Your task to perform on an android device: Go to sound settings Image 0: 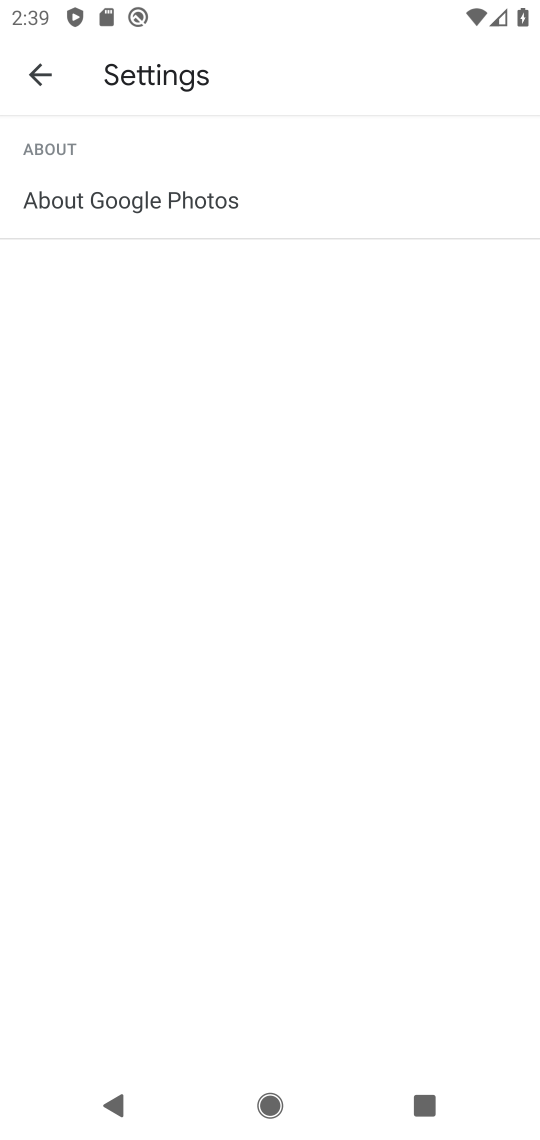
Step 0: press home button
Your task to perform on an android device: Go to sound settings Image 1: 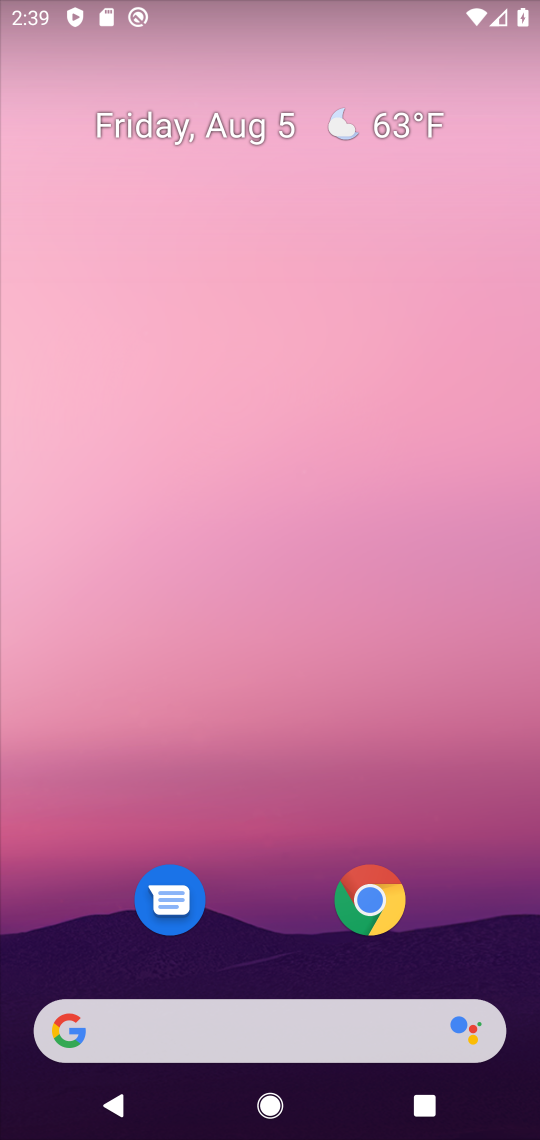
Step 1: drag from (240, 962) to (164, 346)
Your task to perform on an android device: Go to sound settings Image 2: 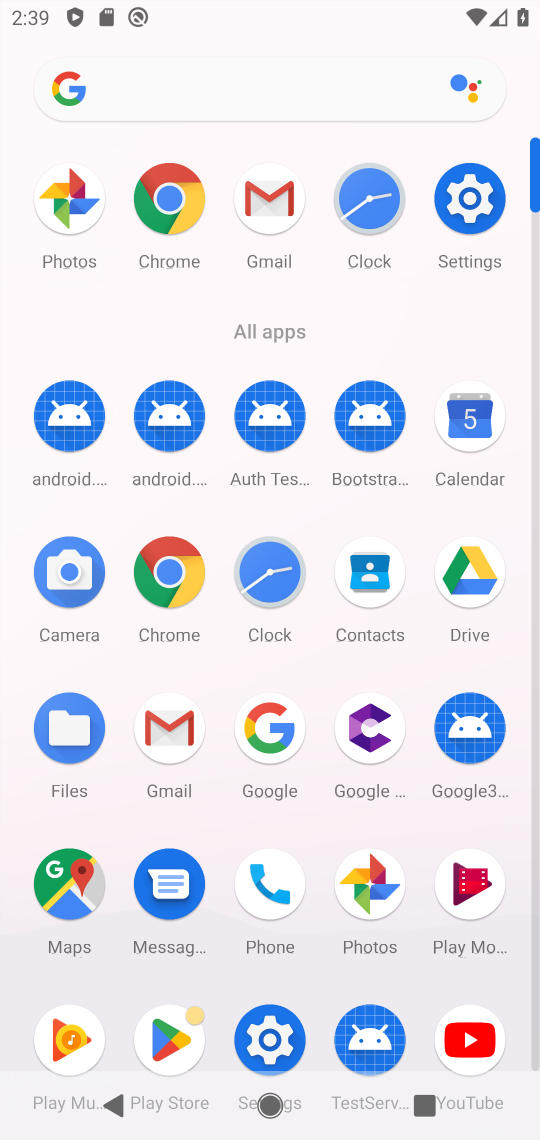
Step 2: click (265, 1031)
Your task to perform on an android device: Go to sound settings Image 3: 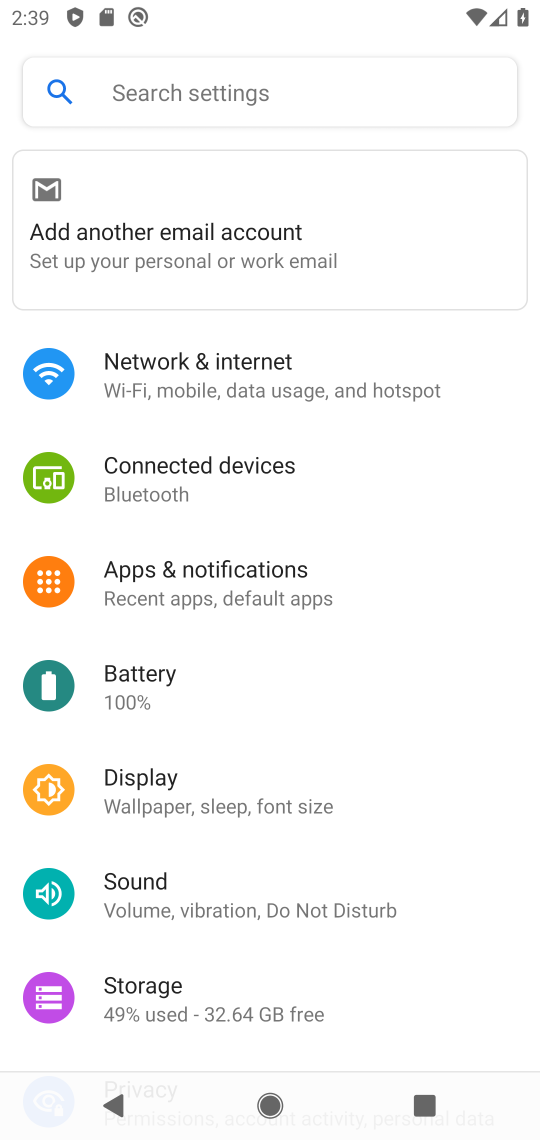
Step 3: click (242, 868)
Your task to perform on an android device: Go to sound settings Image 4: 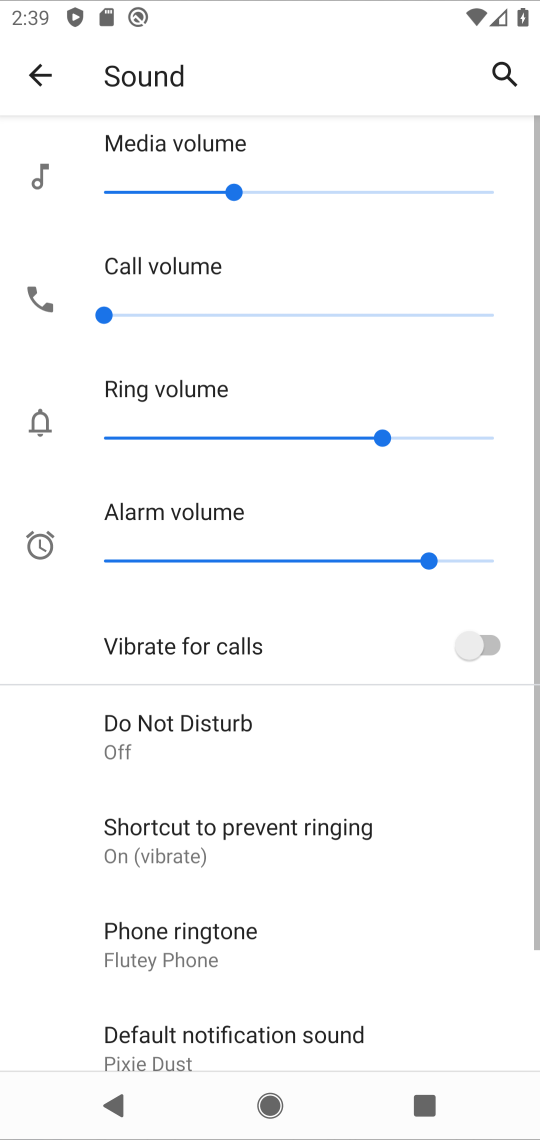
Step 4: task complete